Your task to perform on an android device: toggle javascript in the chrome app Image 0: 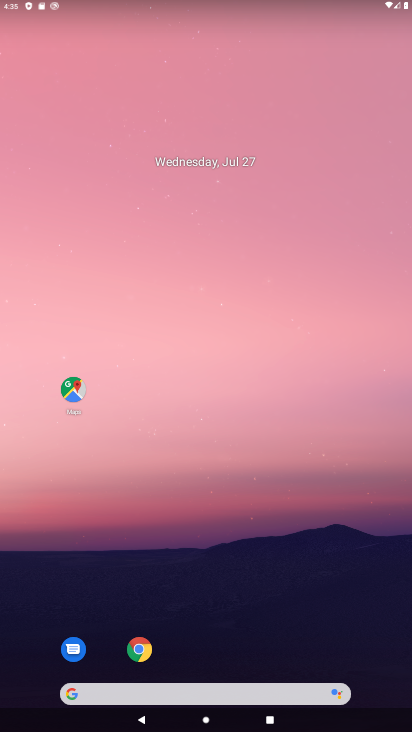
Step 0: click (140, 651)
Your task to perform on an android device: toggle javascript in the chrome app Image 1: 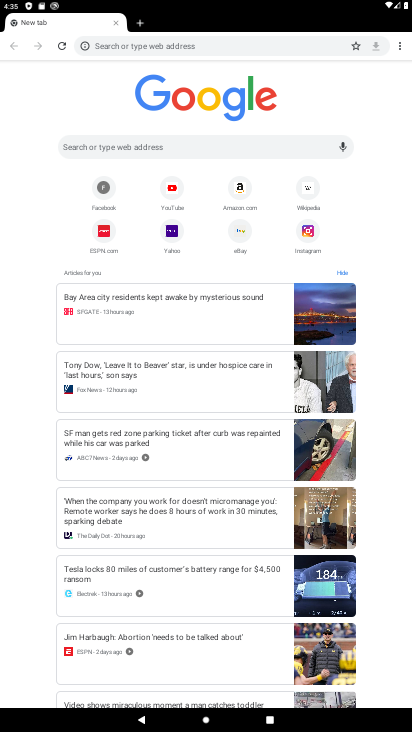
Step 1: click (399, 47)
Your task to perform on an android device: toggle javascript in the chrome app Image 2: 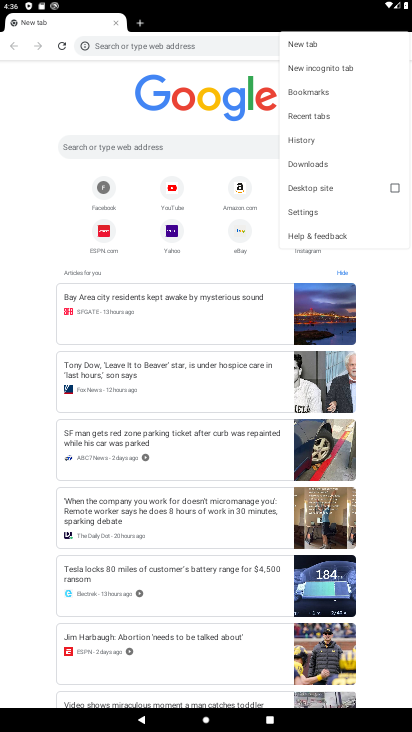
Step 2: click (313, 212)
Your task to perform on an android device: toggle javascript in the chrome app Image 3: 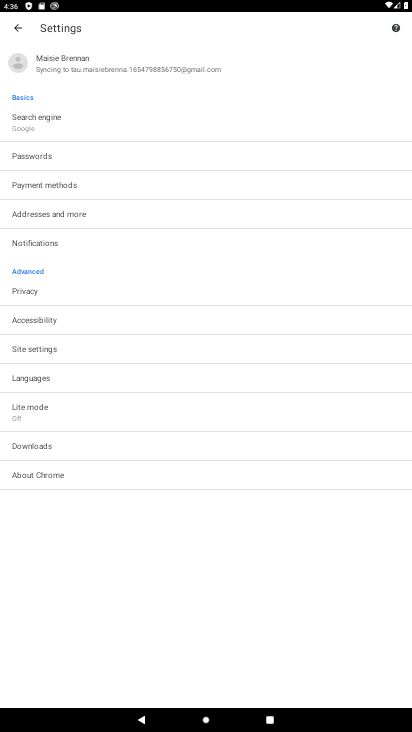
Step 3: click (42, 352)
Your task to perform on an android device: toggle javascript in the chrome app Image 4: 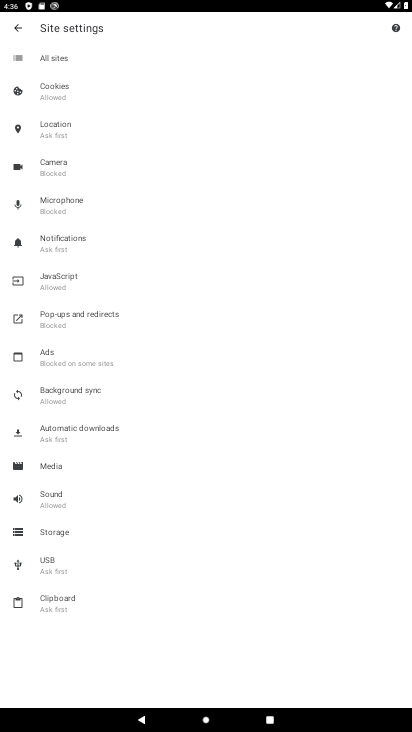
Step 4: click (61, 281)
Your task to perform on an android device: toggle javascript in the chrome app Image 5: 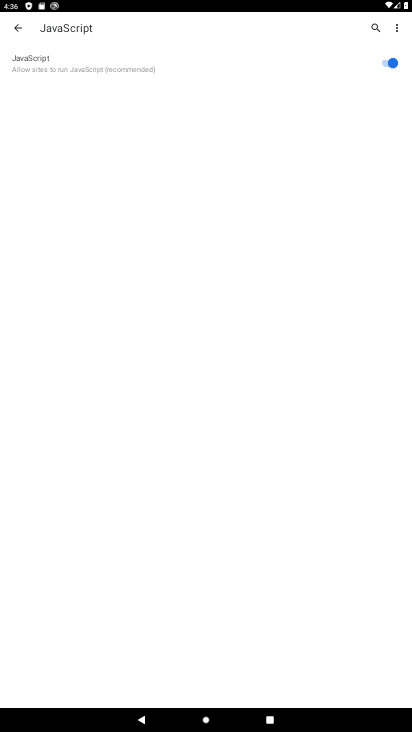
Step 5: click (388, 65)
Your task to perform on an android device: toggle javascript in the chrome app Image 6: 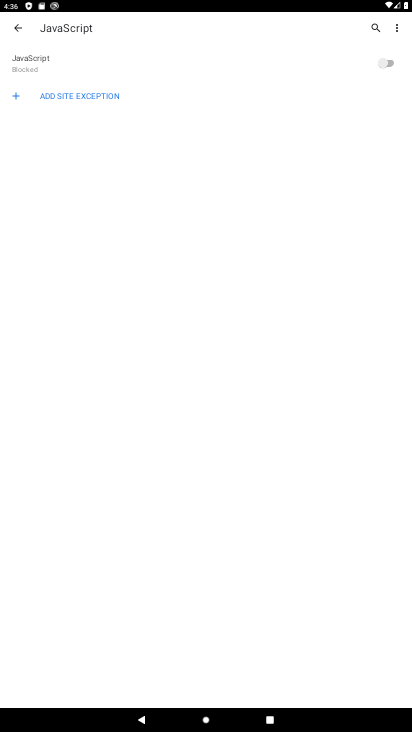
Step 6: task complete